Your task to perform on an android device: turn off improve location accuracy Image 0: 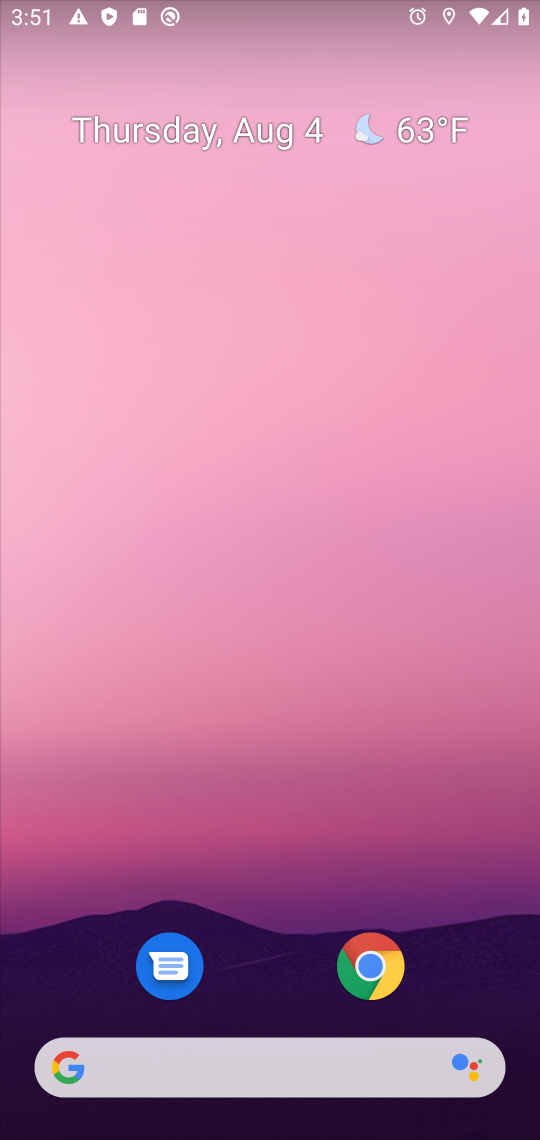
Step 0: drag from (291, 1000) to (292, 195)
Your task to perform on an android device: turn off improve location accuracy Image 1: 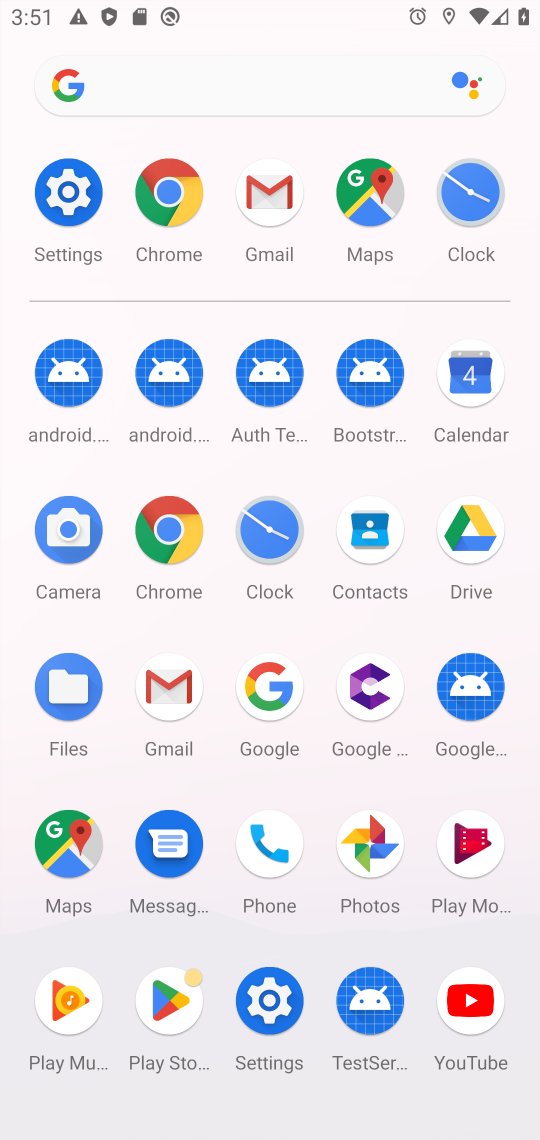
Step 1: click (62, 212)
Your task to perform on an android device: turn off improve location accuracy Image 2: 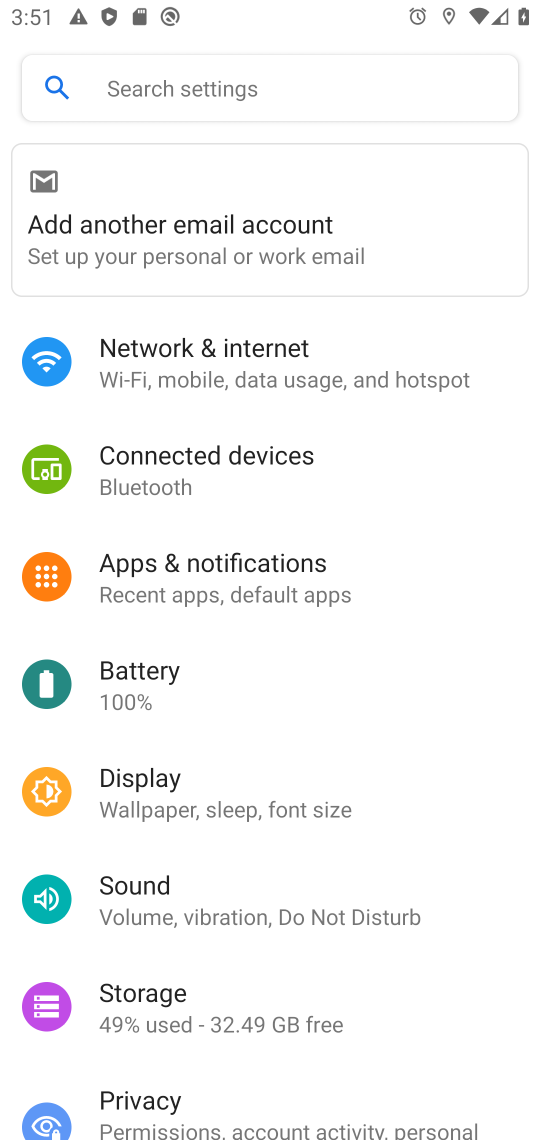
Step 2: drag from (432, 710) to (392, 192)
Your task to perform on an android device: turn off improve location accuracy Image 3: 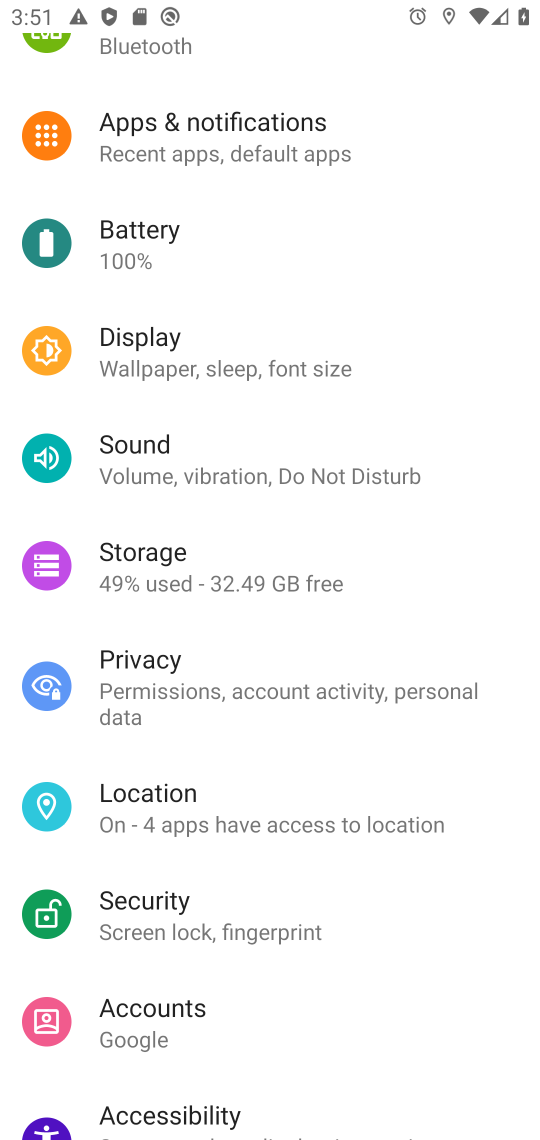
Step 3: click (136, 813)
Your task to perform on an android device: turn off improve location accuracy Image 4: 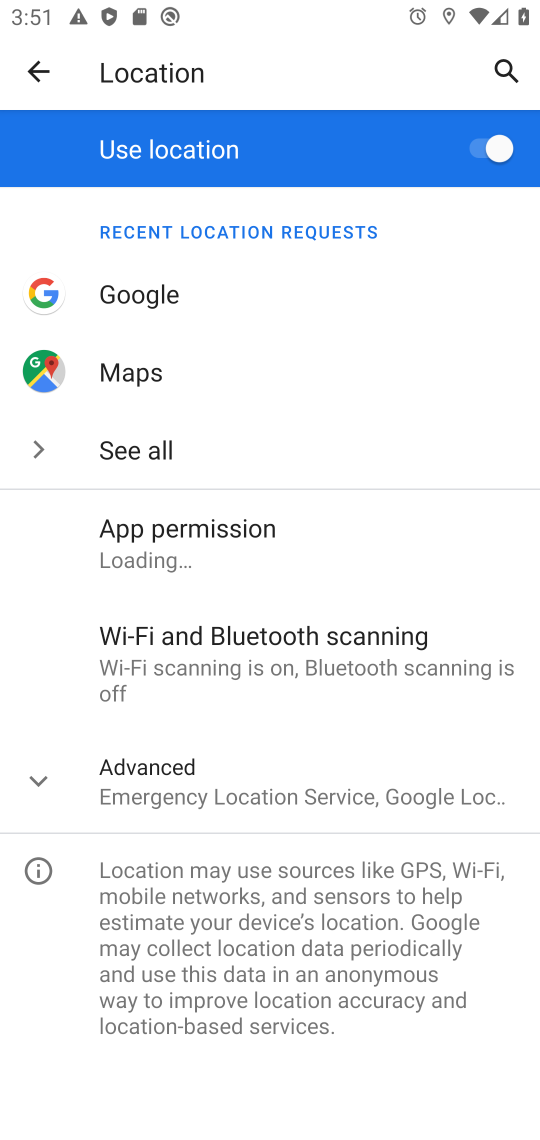
Step 4: click (131, 786)
Your task to perform on an android device: turn off improve location accuracy Image 5: 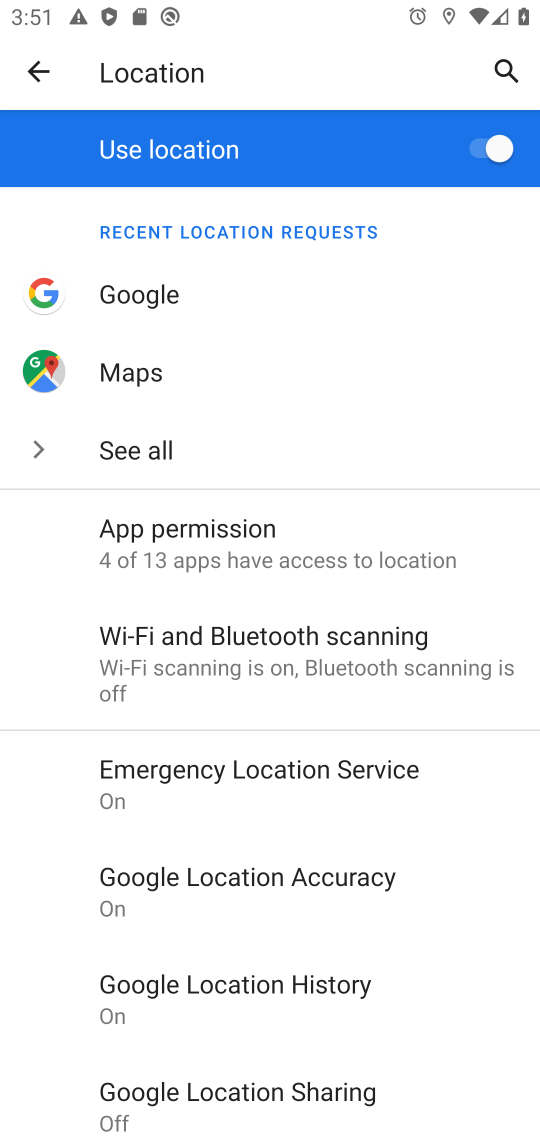
Step 5: click (249, 884)
Your task to perform on an android device: turn off improve location accuracy Image 6: 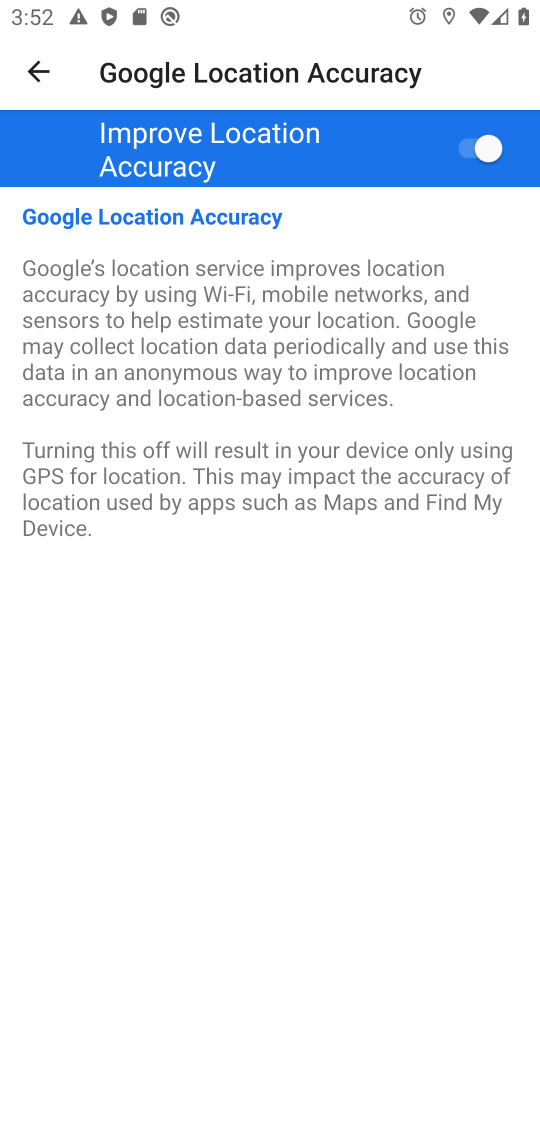
Step 6: click (485, 148)
Your task to perform on an android device: turn off improve location accuracy Image 7: 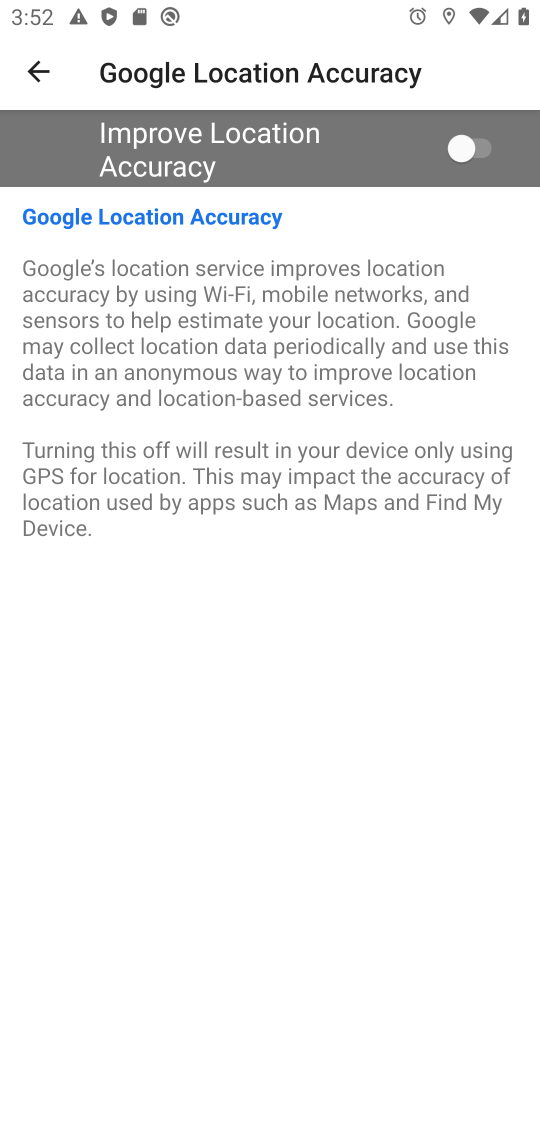
Step 7: task complete